Your task to perform on an android device: Set the phone to "Do not disturb". Image 0: 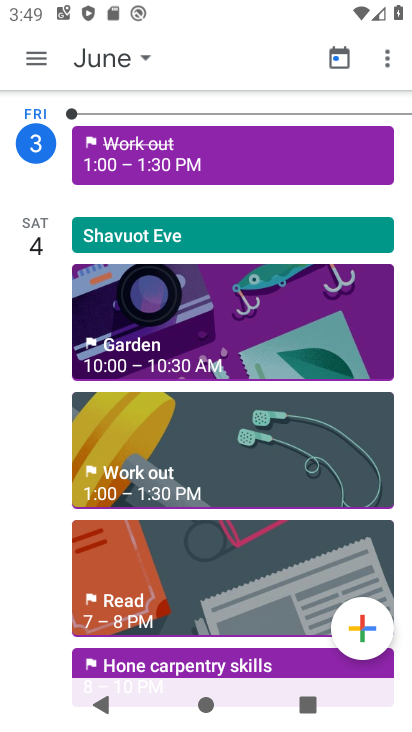
Step 0: press home button
Your task to perform on an android device: Set the phone to "Do not disturb". Image 1: 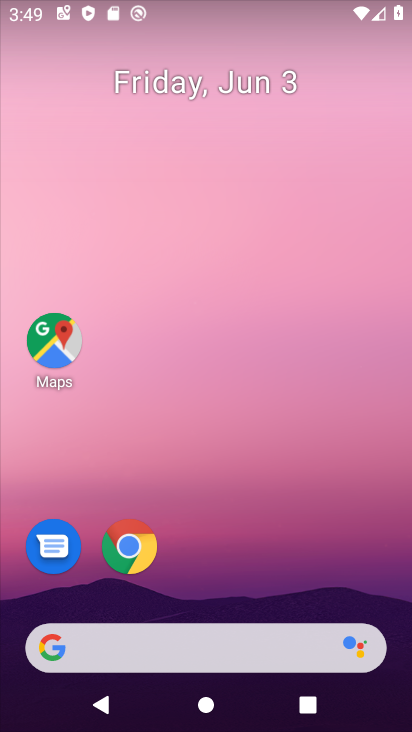
Step 1: drag from (196, 510) to (218, 1)
Your task to perform on an android device: Set the phone to "Do not disturb". Image 2: 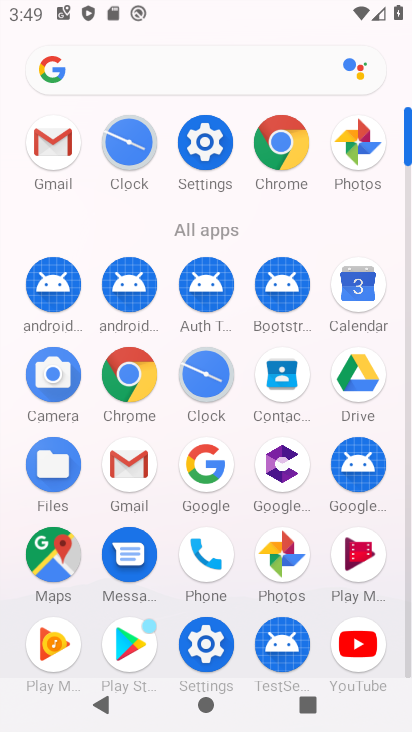
Step 2: click (191, 148)
Your task to perform on an android device: Set the phone to "Do not disturb". Image 3: 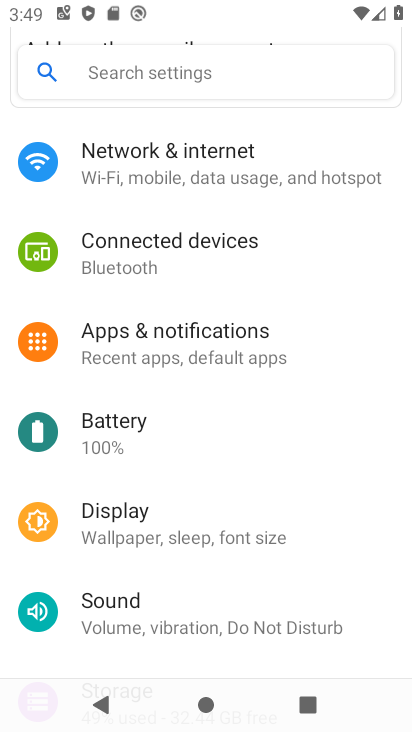
Step 3: click (216, 605)
Your task to perform on an android device: Set the phone to "Do not disturb". Image 4: 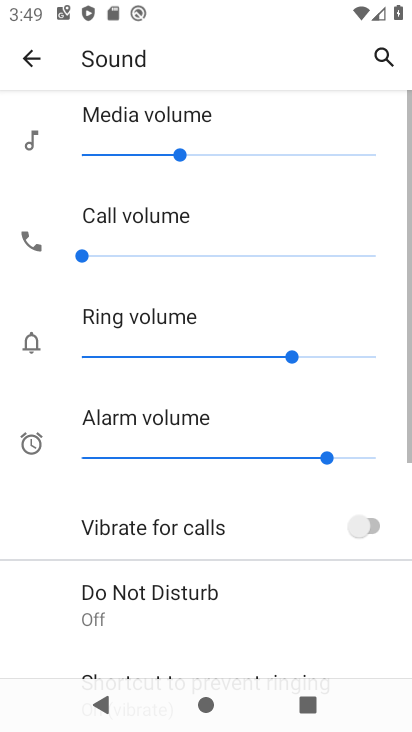
Step 4: drag from (250, 441) to (240, 365)
Your task to perform on an android device: Set the phone to "Do not disturb". Image 5: 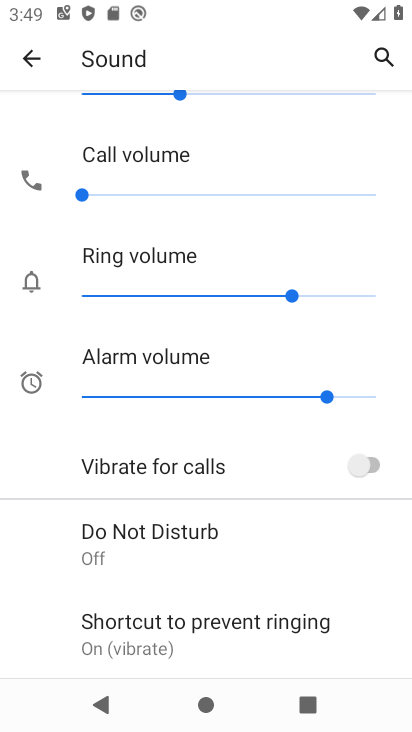
Step 5: click (177, 521)
Your task to perform on an android device: Set the phone to "Do not disturb". Image 6: 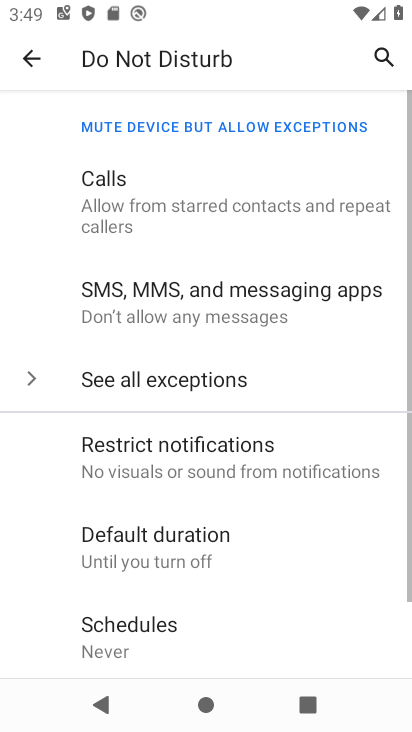
Step 6: drag from (212, 491) to (231, 280)
Your task to perform on an android device: Set the phone to "Do not disturb". Image 7: 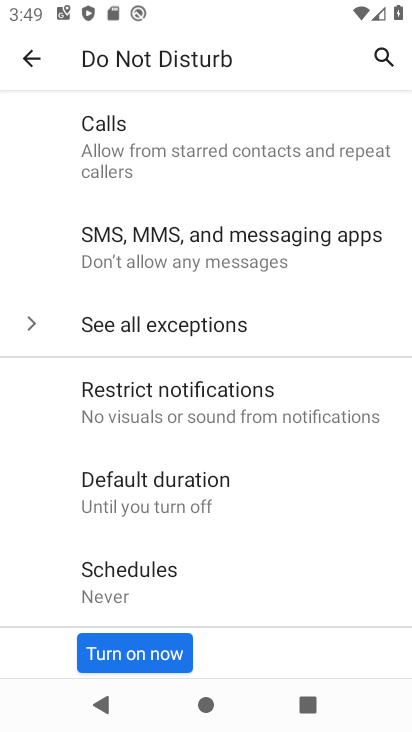
Step 7: click (136, 652)
Your task to perform on an android device: Set the phone to "Do not disturb". Image 8: 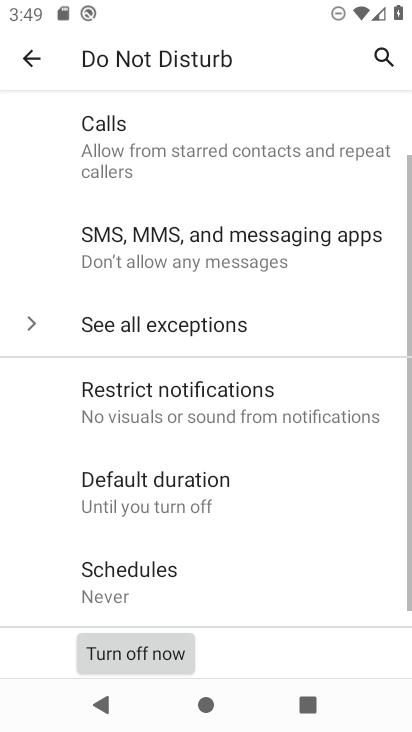
Step 8: click (39, 62)
Your task to perform on an android device: Set the phone to "Do not disturb". Image 9: 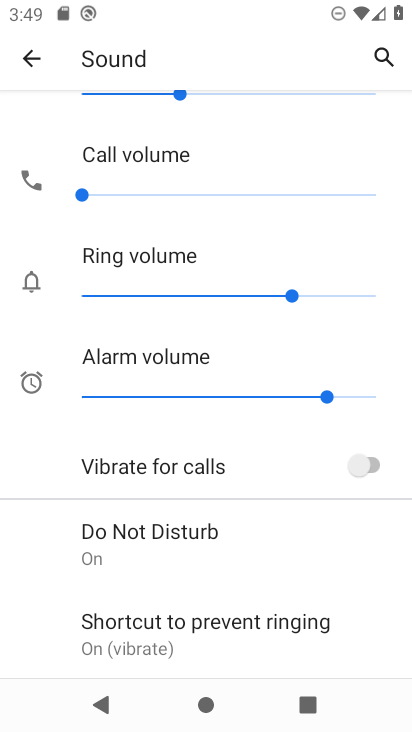
Step 9: task complete